Your task to perform on an android device: turn off translation in the chrome app Image 0: 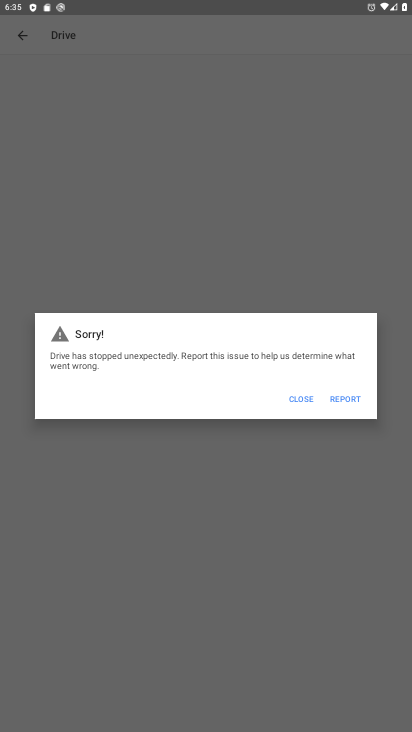
Step 0: drag from (376, 642) to (311, 170)
Your task to perform on an android device: turn off translation in the chrome app Image 1: 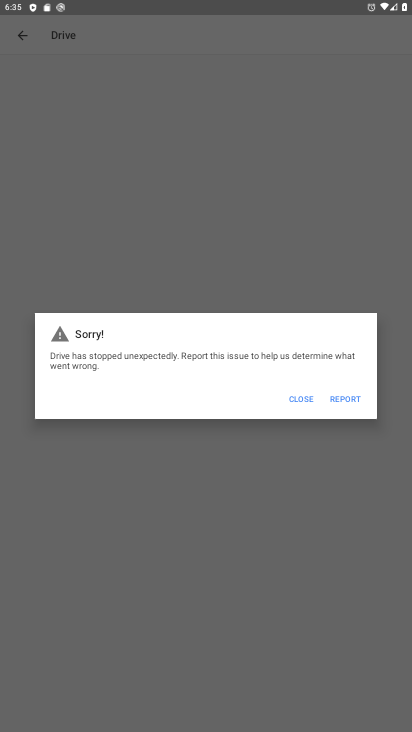
Step 1: press home button
Your task to perform on an android device: turn off translation in the chrome app Image 2: 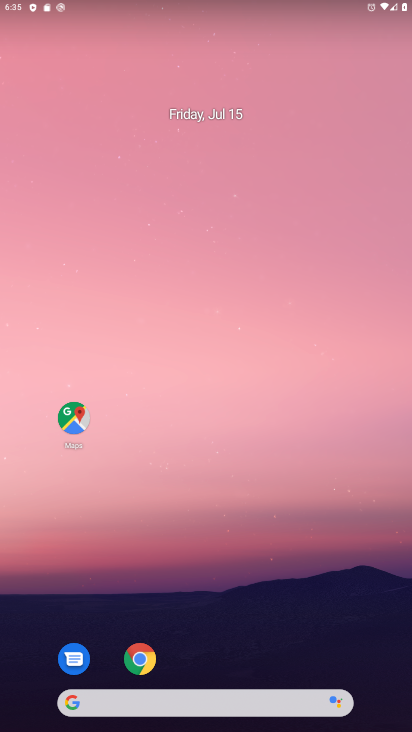
Step 2: click (140, 660)
Your task to perform on an android device: turn off translation in the chrome app Image 3: 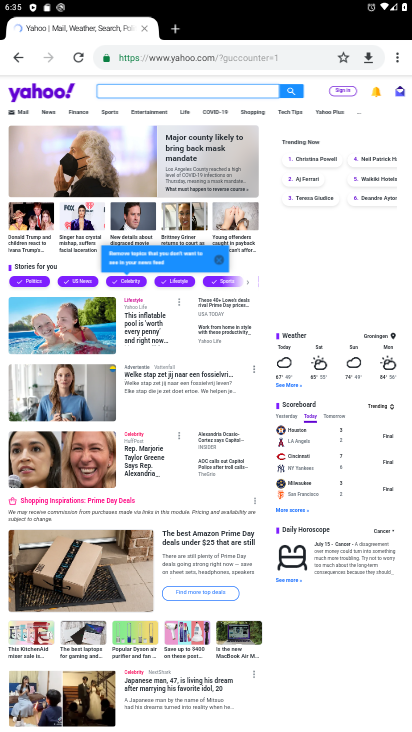
Step 3: click (396, 60)
Your task to perform on an android device: turn off translation in the chrome app Image 4: 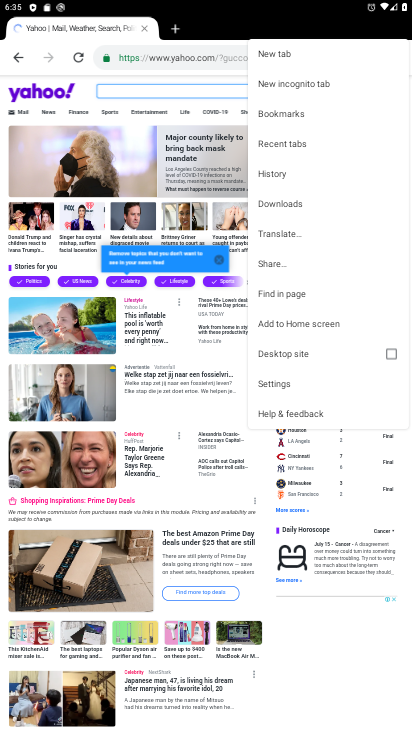
Step 4: click (279, 380)
Your task to perform on an android device: turn off translation in the chrome app Image 5: 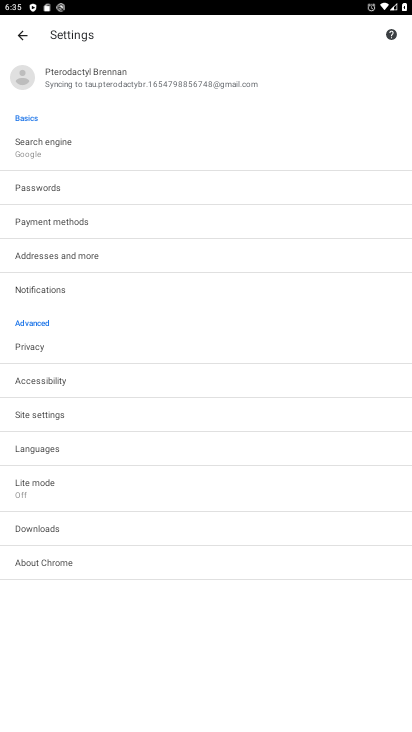
Step 5: click (39, 451)
Your task to perform on an android device: turn off translation in the chrome app Image 6: 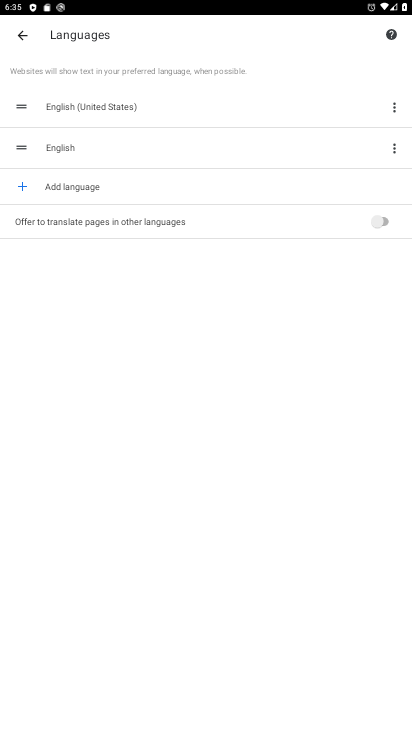
Step 6: task complete